Your task to perform on an android device: Open accessibility settings Image 0: 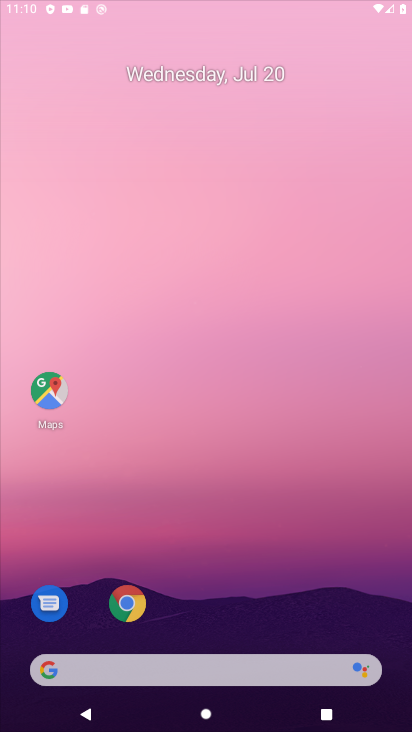
Step 0: press home button
Your task to perform on an android device: Open accessibility settings Image 1: 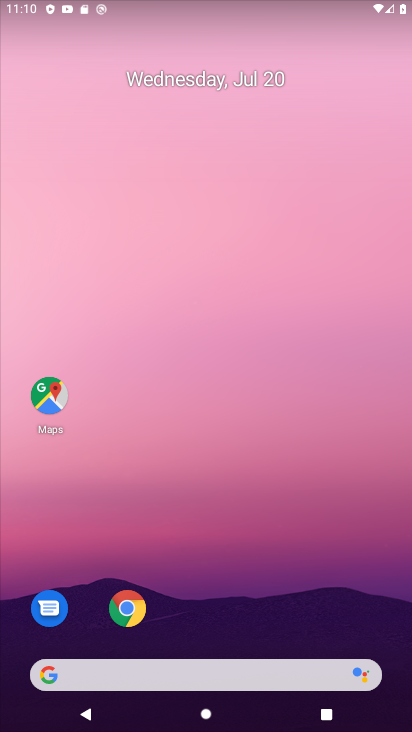
Step 1: drag from (374, 616) to (401, 333)
Your task to perform on an android device: Open accessibility settings Image 2: 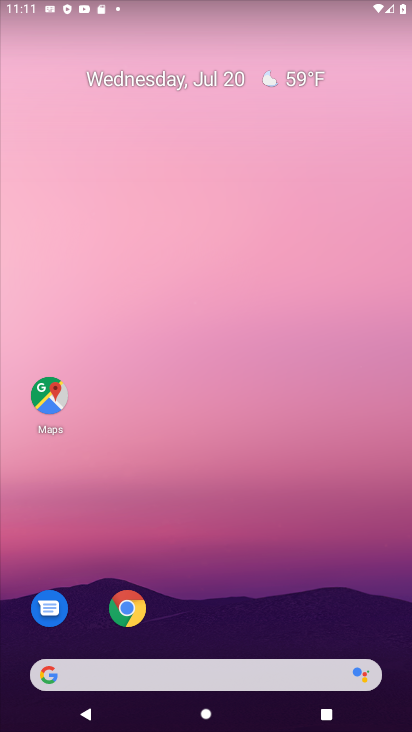
Step 2: drag from (352, 382) to (409, 505)
Your task to perform on an android device: Open accessibility settings Image 3: 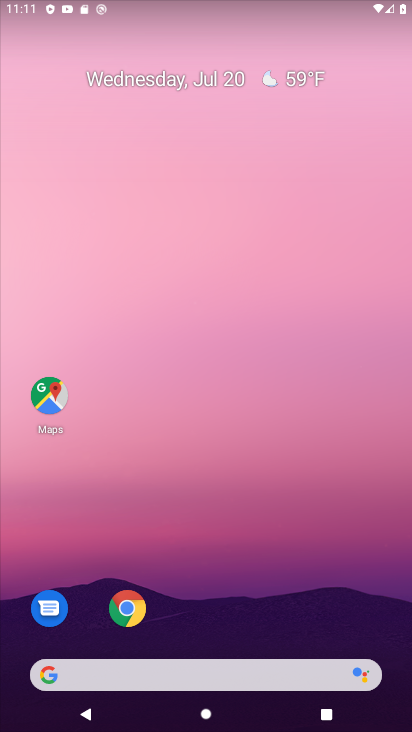
Step 3: drag from (313, 437) to (406, 382)
Your task to perform on an android device: Open accessibility settings Image 4: 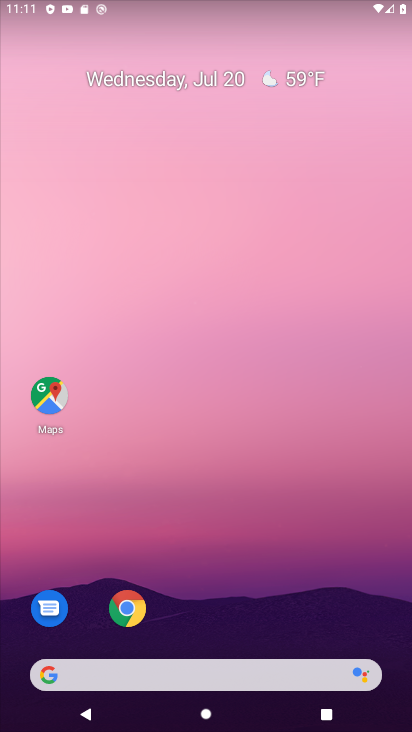
Step 4: drag from (386, 641) to (410, 188)
Your task to perform on an android device: Open accessibility settings Image 5: 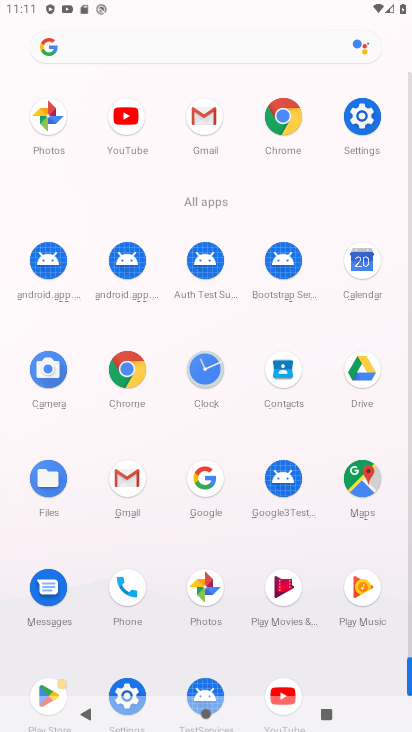
Step 5: click (370, 121)
Your task to perform on an android device: Open accessibility settings Image 6: 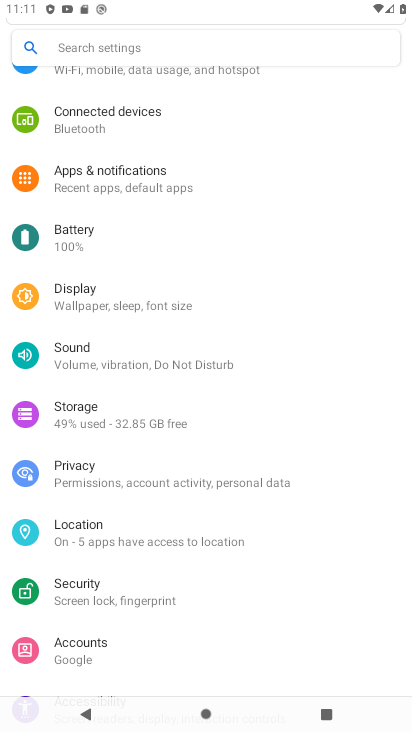
Step 6: drag from (339, 315) to (327, 438)
Your task to perform on an android device: Open accessibility settings Image 7: 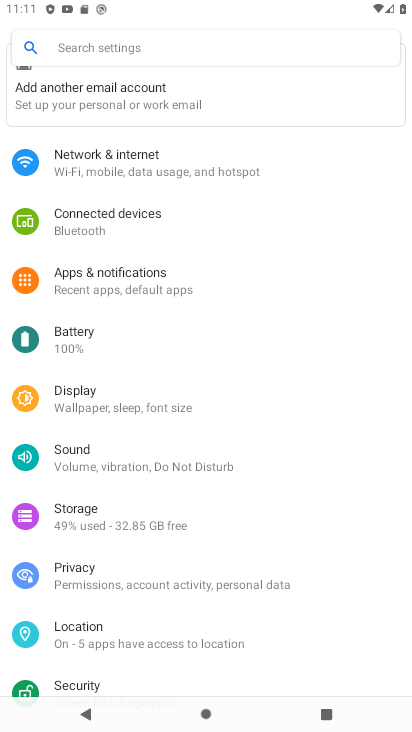
Step 7: drag from (351, 260) to (347, 420)
Your task to perform on an android device: Open accessibility settings Image 8: 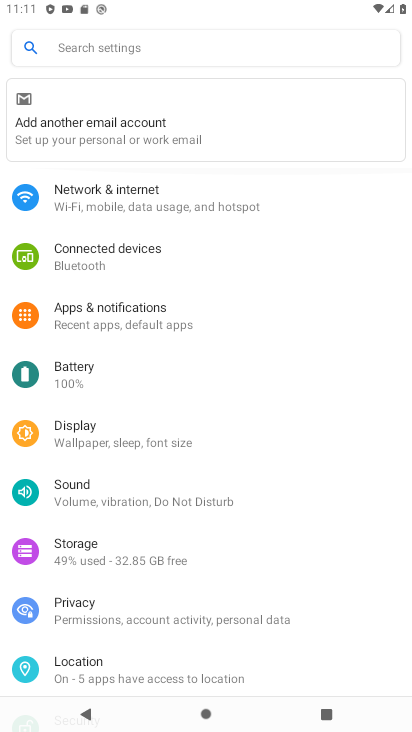
Step 8: drag from (349, 505) to (352, 395)
Your task to perform on an android device: Open accessibility settings Image 9: 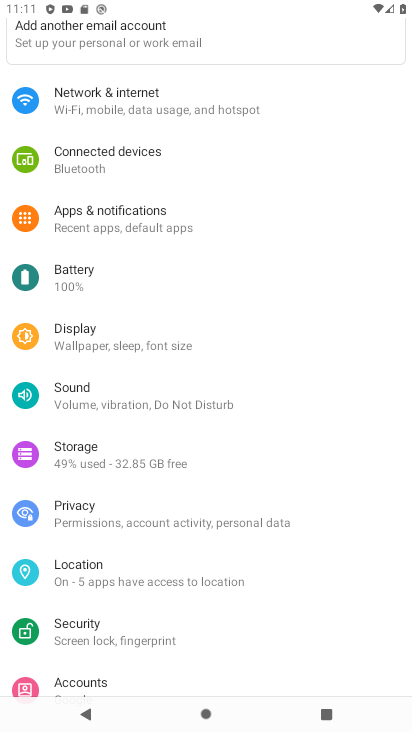
Step 9: drag from (343, 498) to (364, 402)
Your task to perform on an android device: Open accessibility settings Image 10: 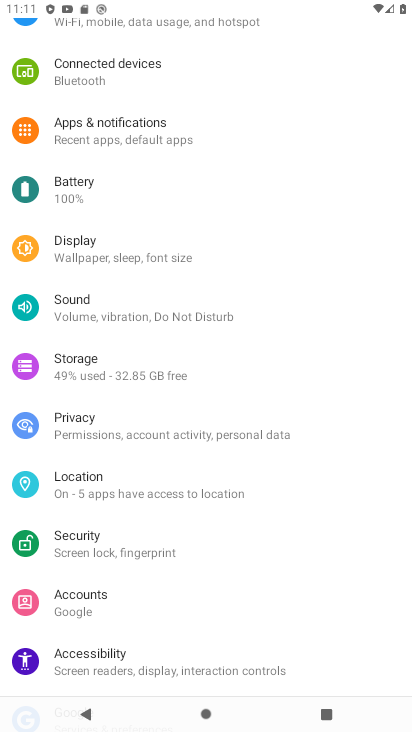
Step 10: drag from (356, 508) to (346, 416)
Your task to perform on an android device: Open accessibility settings Image 11: 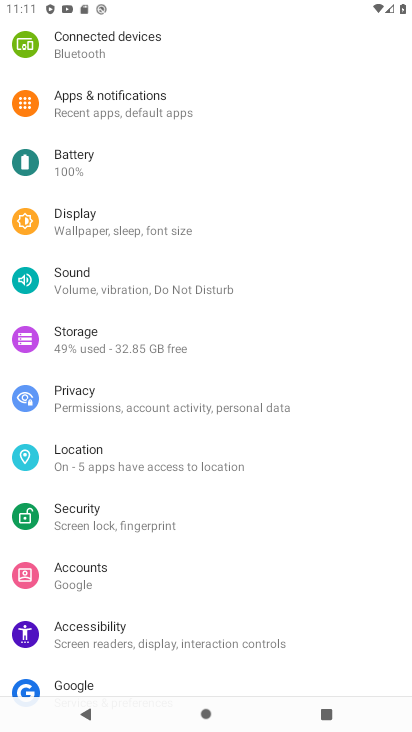
Step 11: drag from (332, 537) to (351, 290)
Your task to perform on an android device: Open accessibility settings Image 12: 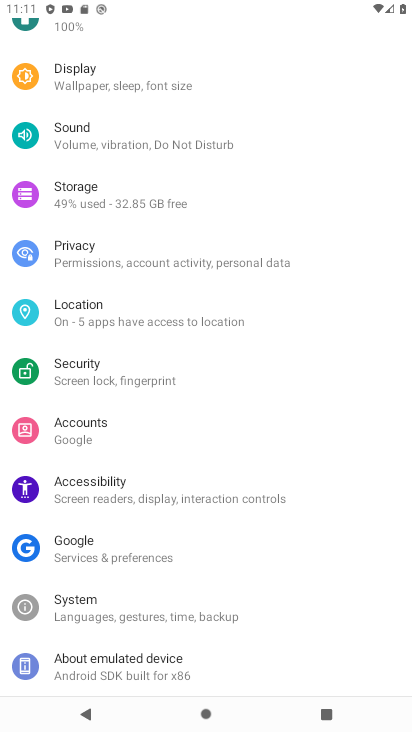
Step 12: click (294, 493)
Your task to perform on an android device: Open accessibility settings Image 13: 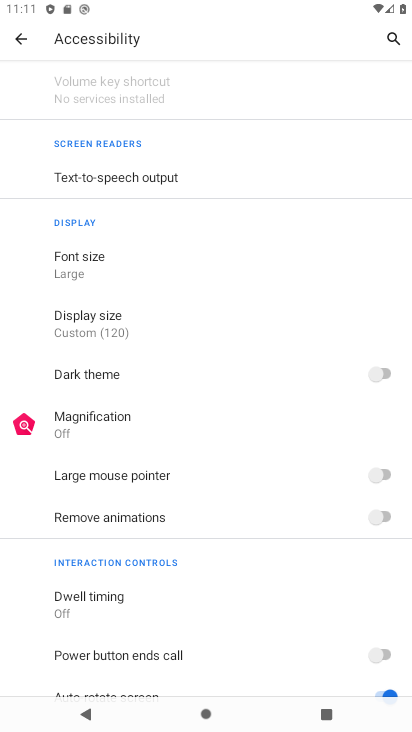
Step 13: task complete